Your task to perform on an android device: How much does a 3 bedroom apartment rent for in New York? Image 0: 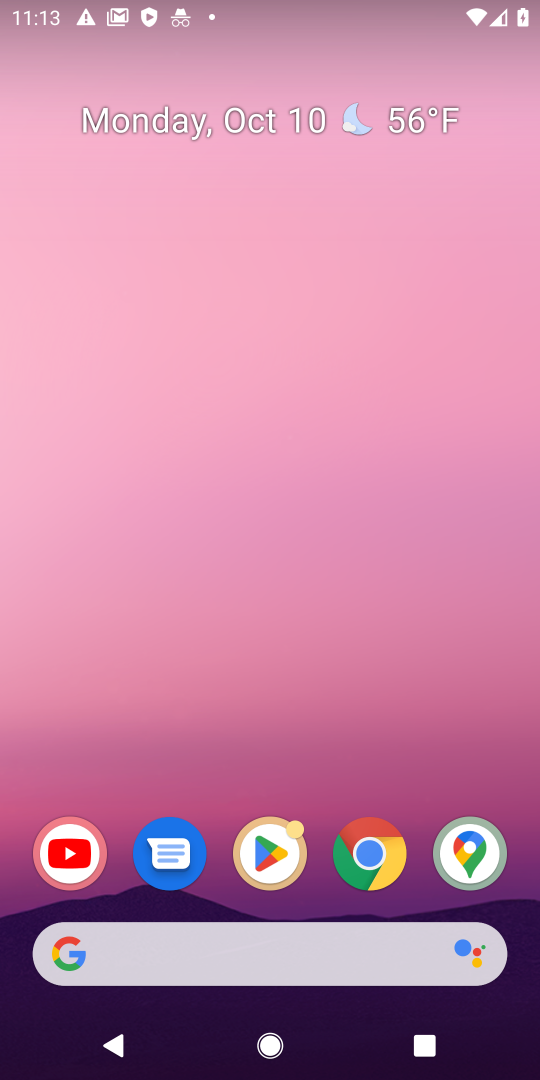
Step 0: press home button
Your task to perform on an android device: How much does a 3 bedroom apartment rent for in New York? Image 1: 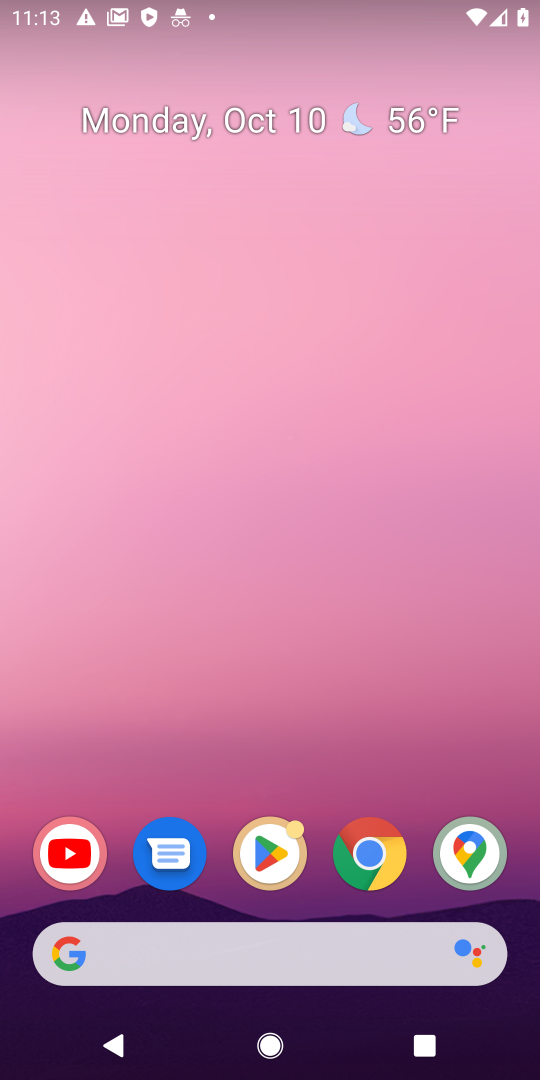
Step 1: click (314, 952)
Your task to perform on an android device: How much does a 3 bedroom apartment rent for in New York? Image 2: 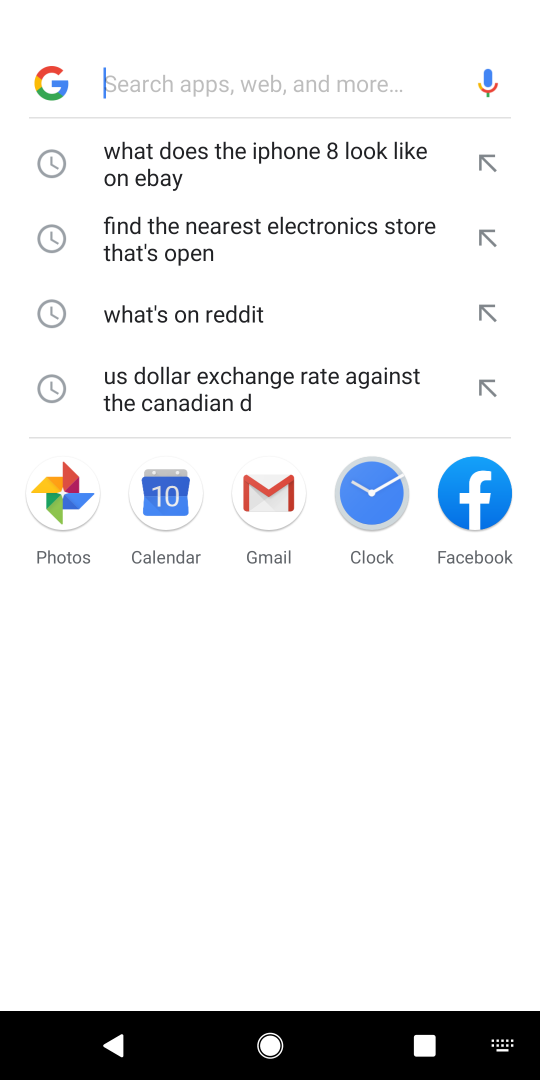
Step 2: type "3 bedroom apartment rent for in New York"
Your task to perform on an android device: How much does a 3 bedroom apartment rent for in New York? Image 3: 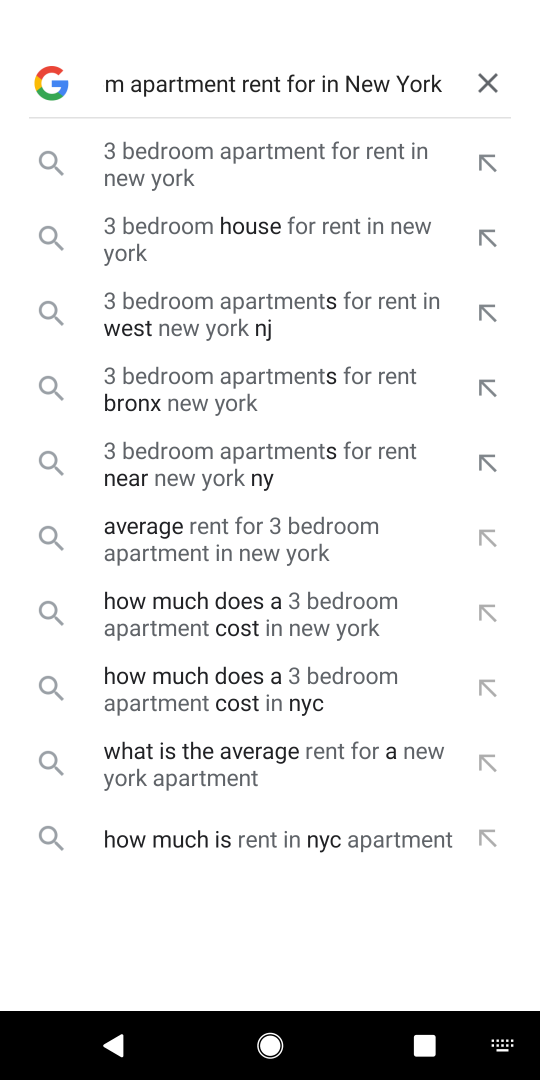
Step 3: press enter
Your task to perform on an android device: How much does a 3 bedroom apartment rent for in New York? Image 4: 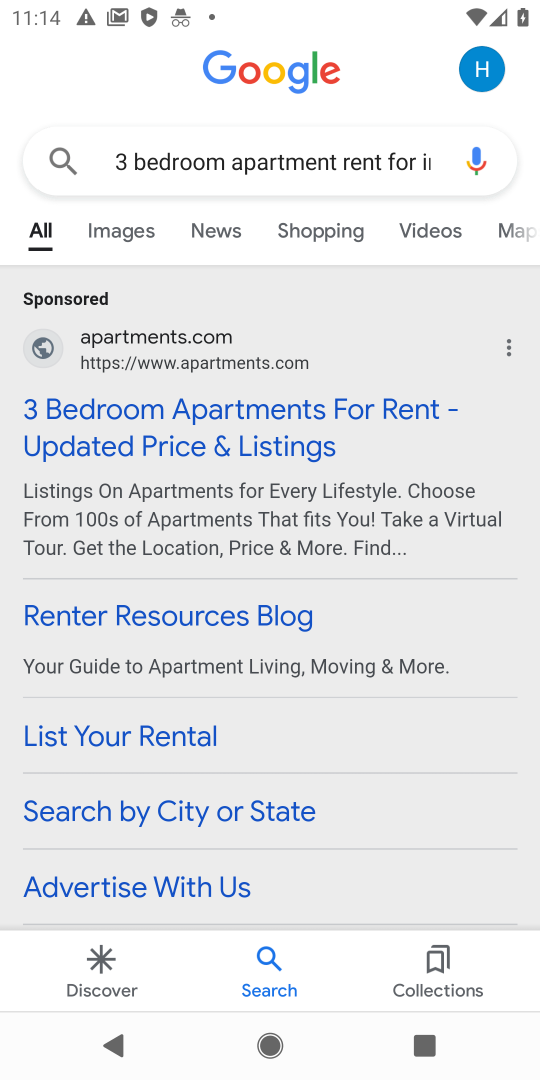
Step 4: click (309, 424)
Your task to perform on an android device: How much does a 3 bedroom apartment rent for in New York? Image 5: 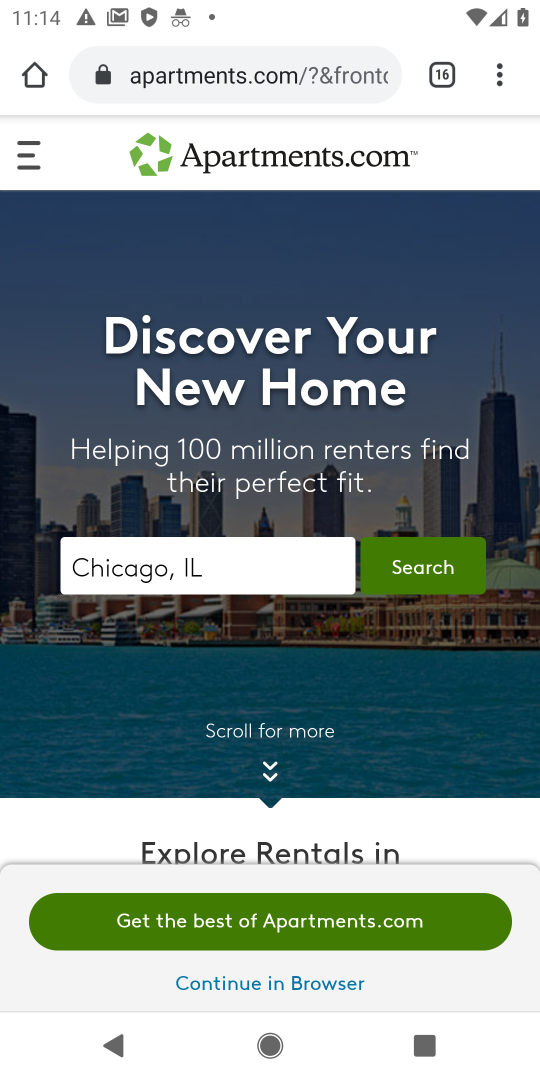
Step 5: task complete